Your task to perform on an android device: turn on bluetooth scan Image 0: 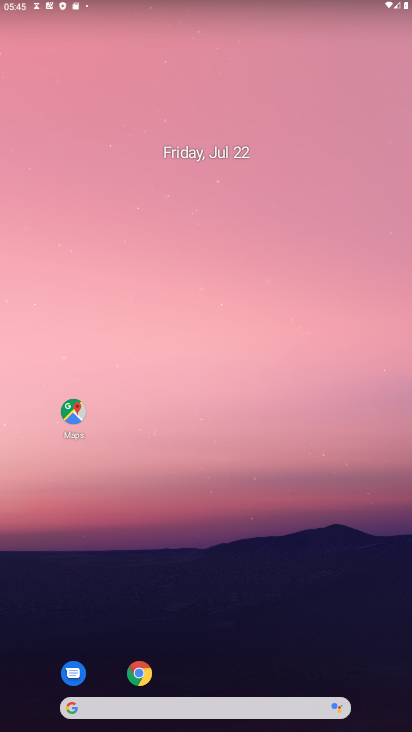
Step 0: drag from (234, 618) to (240, 131)
Your task to perform on an android device: turn on bluetooth scan Image 1: 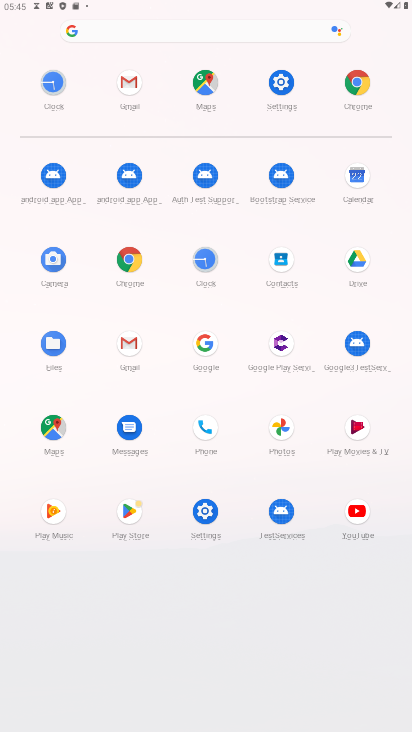
Step 1: click (210, 509)
Your task to perform on an android device: turn on bluetooth scan Image 2: 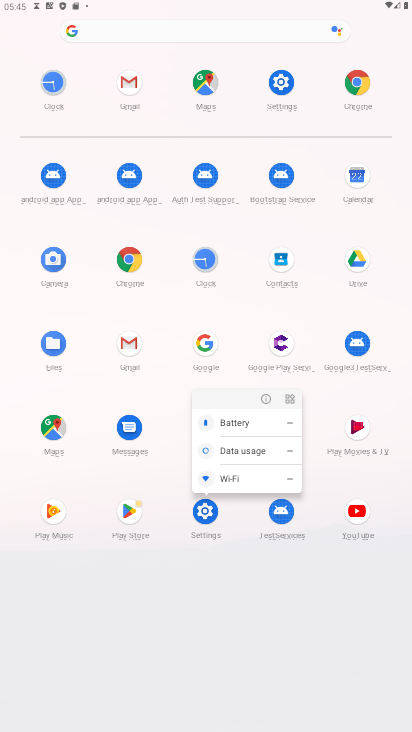
Step 2: click (210, 509)
Your task to perform on an android device: turn on bluetooth scan Image 3: 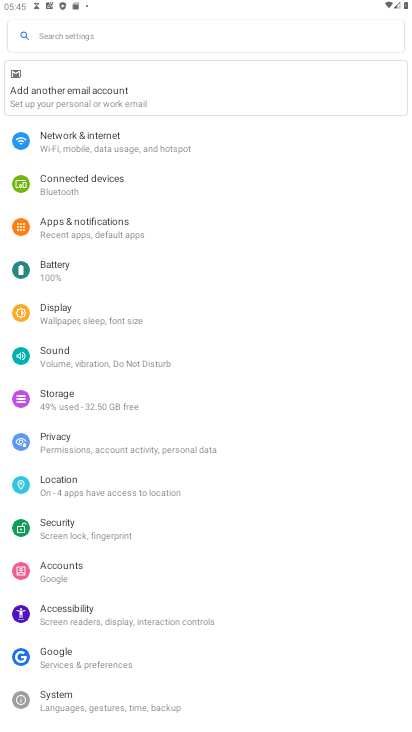
Step 3: click (77, 481)
Your task to perform on an android device: turn on bluetooth scan Image 4: 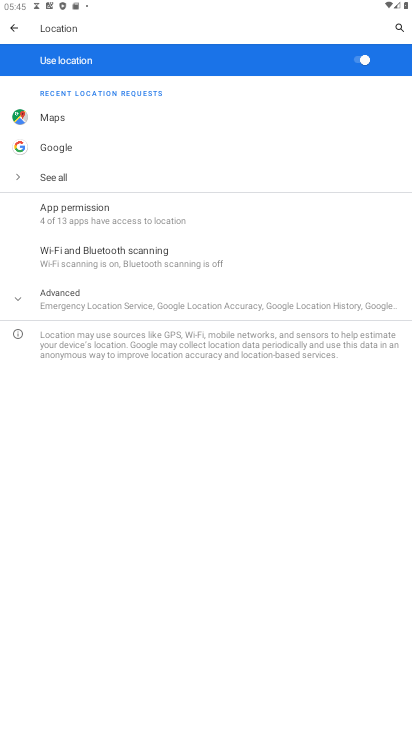
Step 4: click (75, 254)
Your task to perform on an android device: turn on bluetooth scan Image 5: 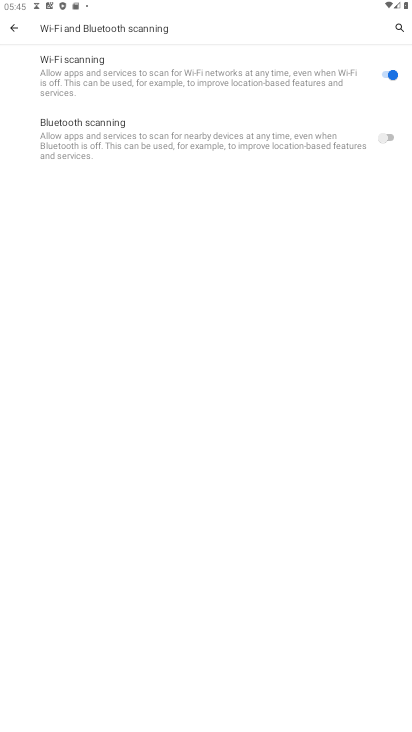
Step 5: click (392, 133)
Your task to perform on an android device: turn on bluetooth scan Image 6: 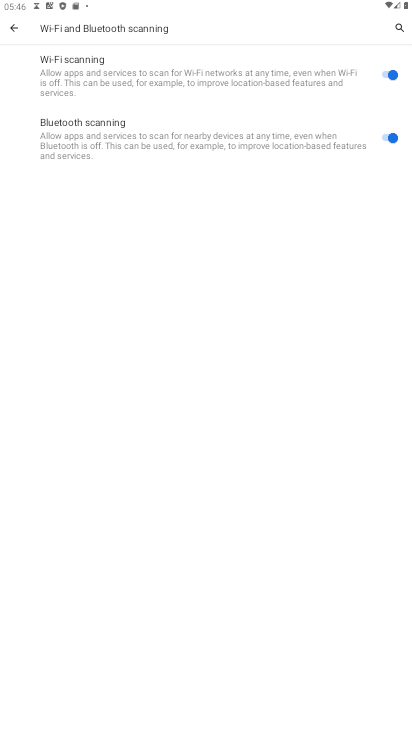
Step 6: task complete